Your task to perform on an android device: What's the news in Laos? Image 0: 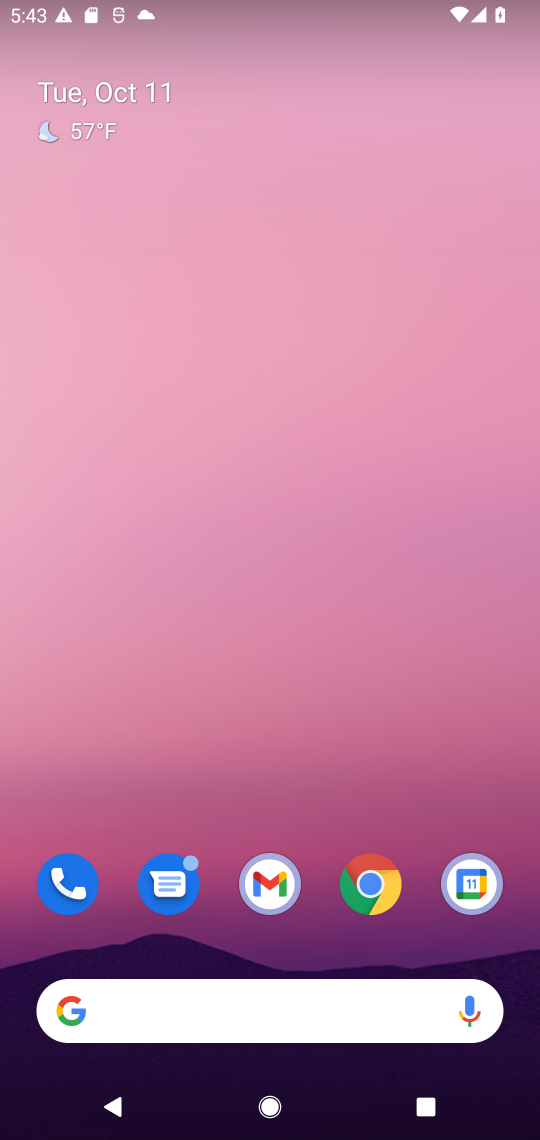
Step 0: drag from (311, 907) to (308, 85)
Your task to perform on an android device: What's the news in Laos? Image 1: 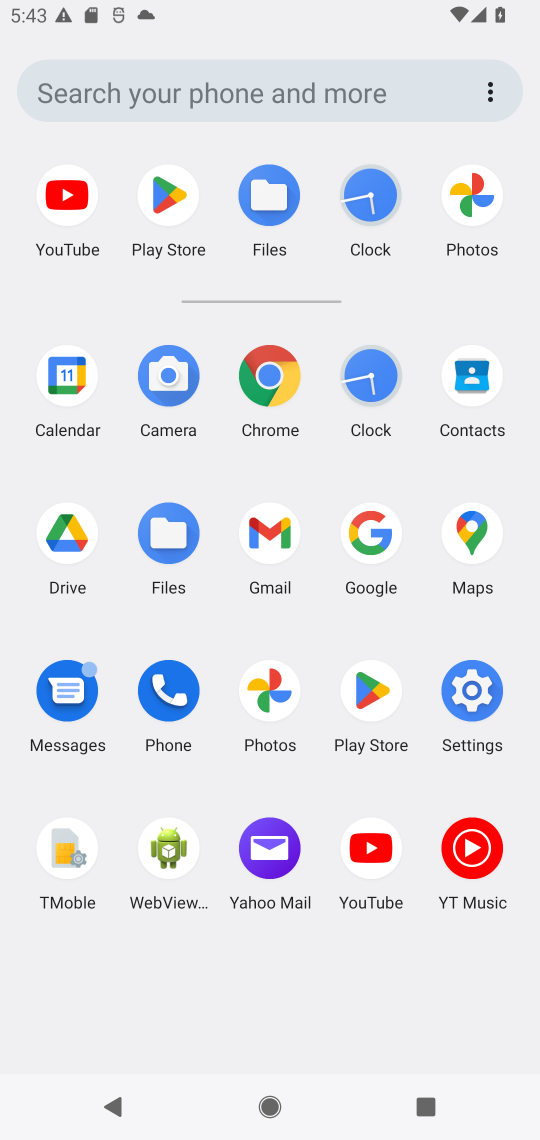
Step 1: click (367, 685)
Your task to perform on an android device: What's the news in Laos? Image 2: 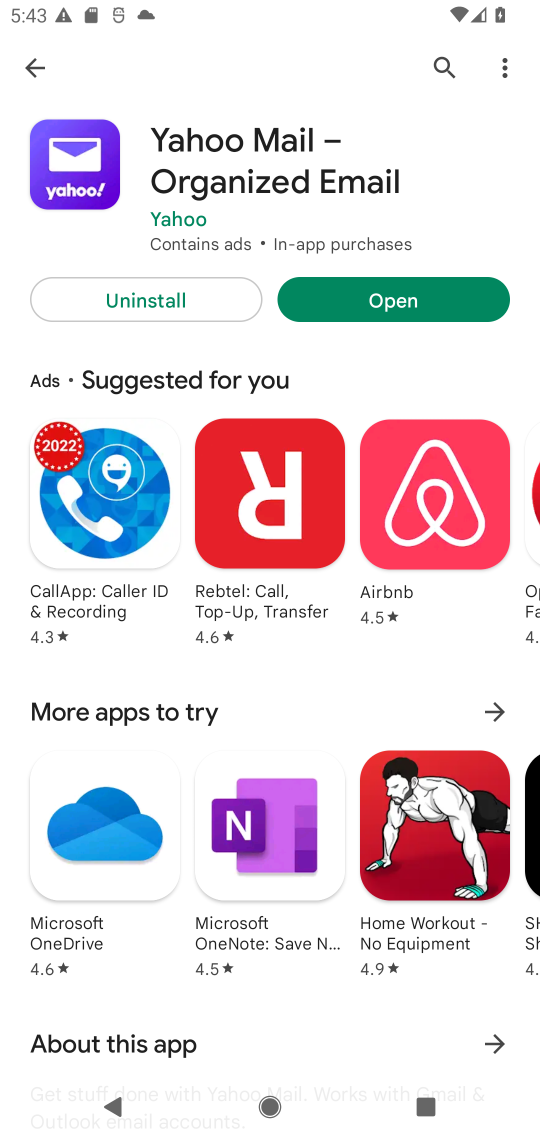
Step 2: press home button
Your task to perform on an android device: What's the news in Laos? Image 3: 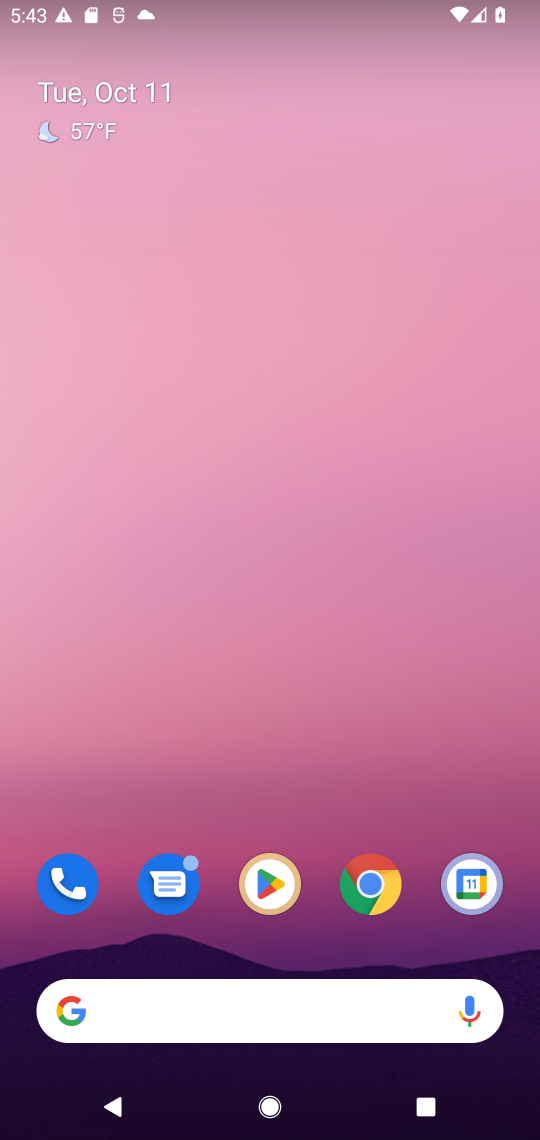
Step 3: click (377, 881)
Your task to perform on an android device: What's the news in Laos? Image 4: 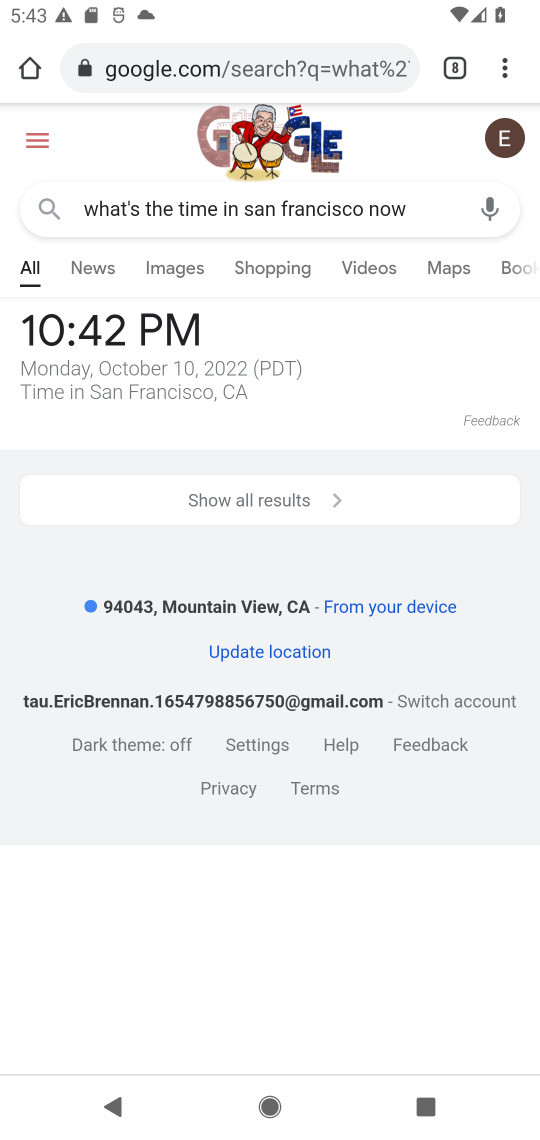
Step 4: click (416, 207)
Your task to perform on an android device: What's the news in Laos? Image 5: 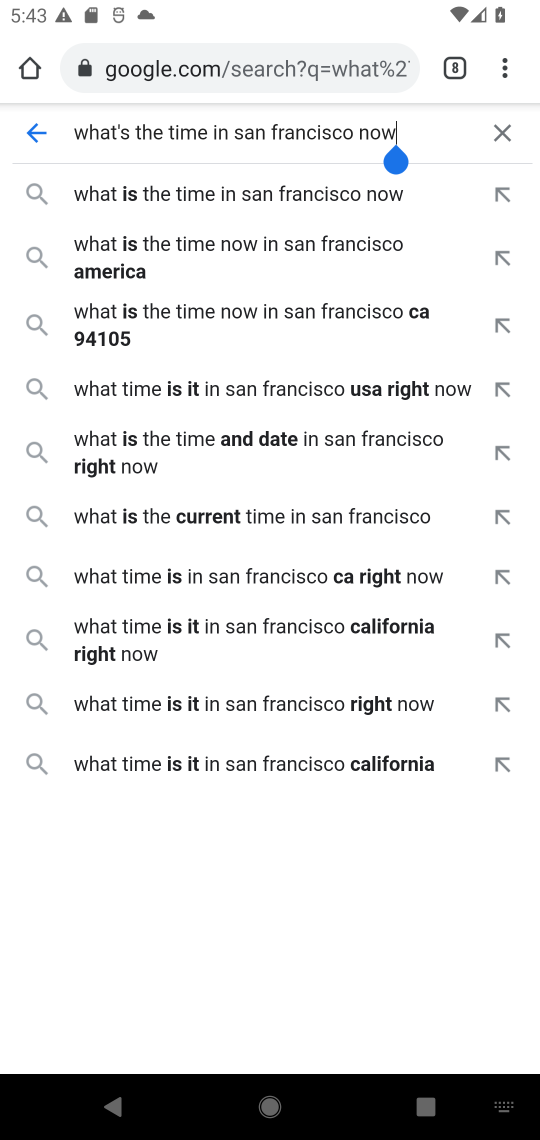
Step 5: click (500, 125)
Your task to perform on an android device: What's the news in Laos? Image 6: 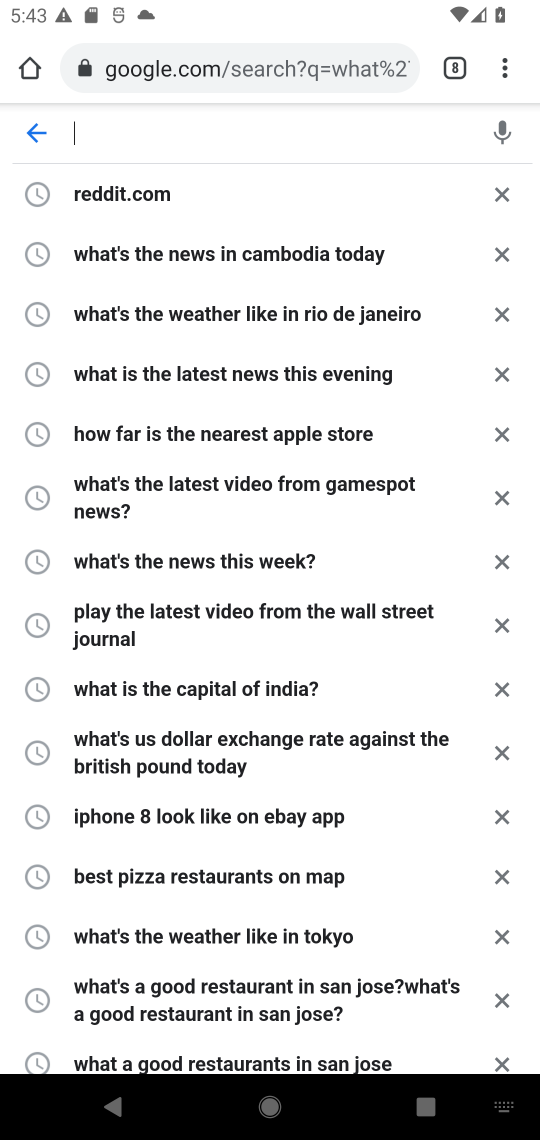
Step 6: type "What's the news in Laos?"
Your task to perform on an android device: What's the news in Laos? Image 7: 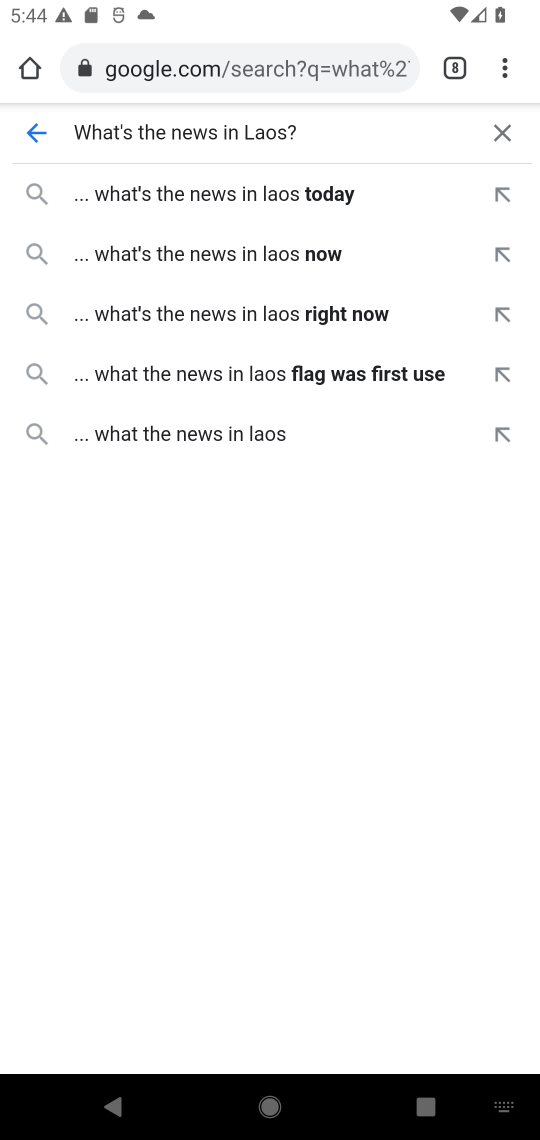
Step 7: click (231, 434)
Your task to perform on an android device: What's the news in Laos? Image 8: 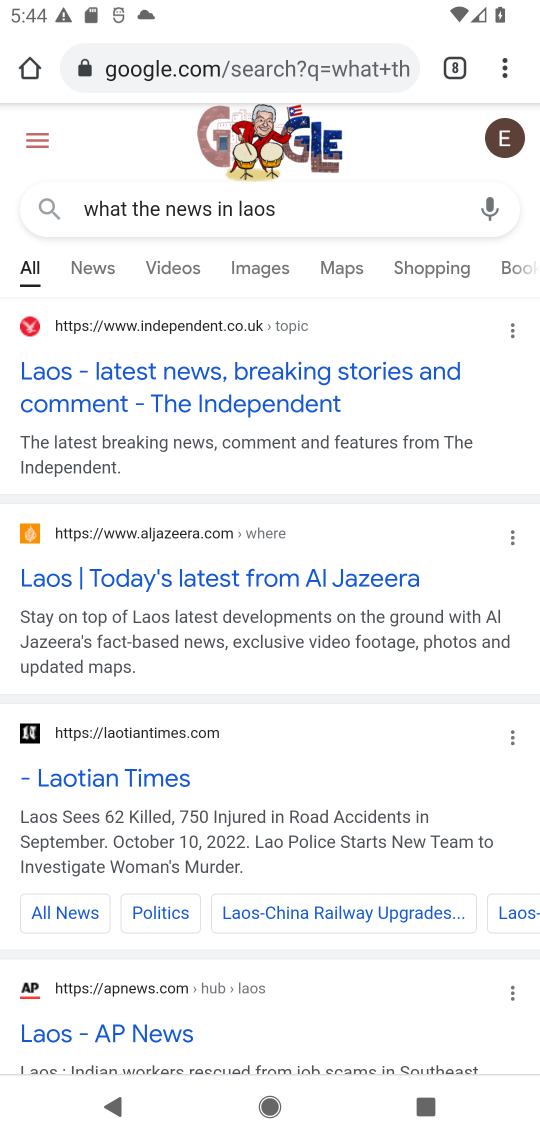
Step 8: task complete